Your task to perform on an android device: manage bookmarks in the chrome app Image 0: 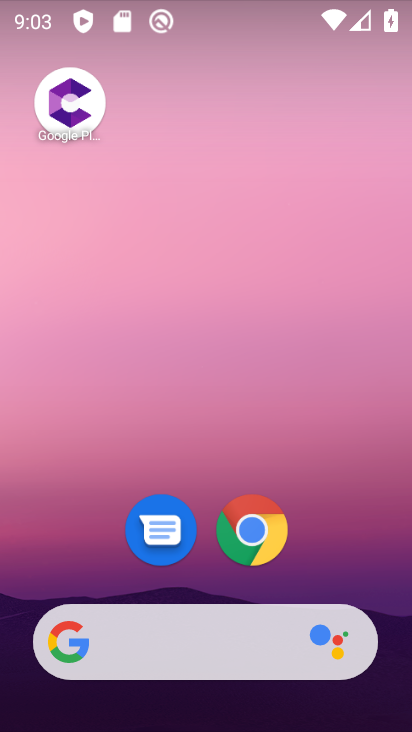
Step 0: click (253, 537)
Your task to perform on an android device: manage bookmarks in the chrome app Image 1: 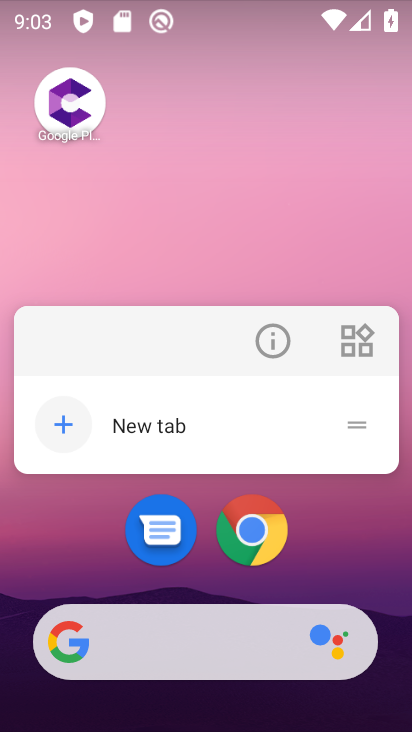
Step 1: click (252, 532)
Your task to perform on an android device: manage bookmarks in the chrome app Image 2: 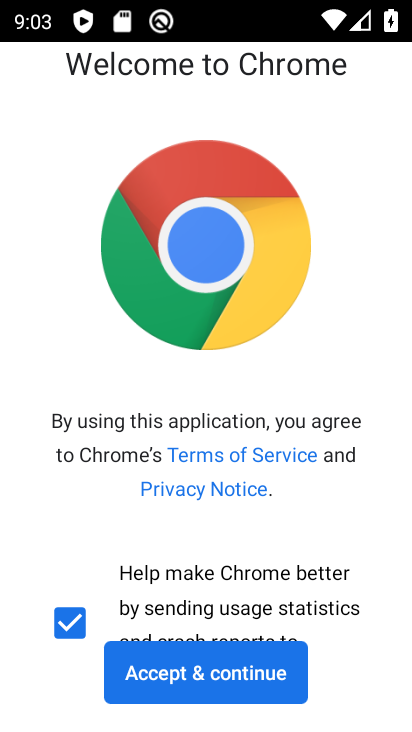
Step 2: click (203, 665)
Your task to perform on an android device: manage bookmarks in the chrome app Image 3: 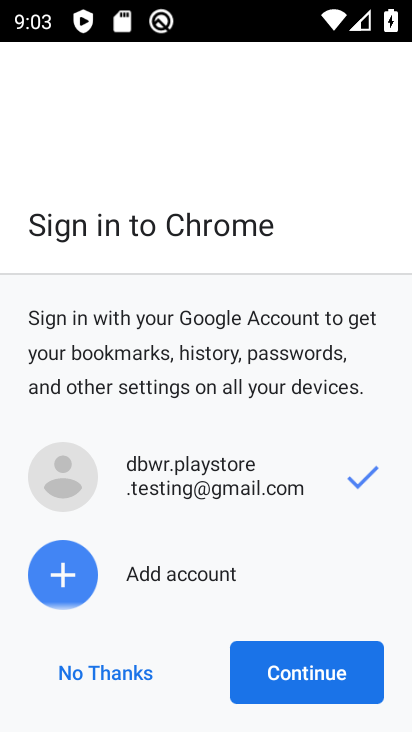
Step 3: click (101, 666)
Your task to perform on an android device: manage bookmarks in the chrome app Image 4: 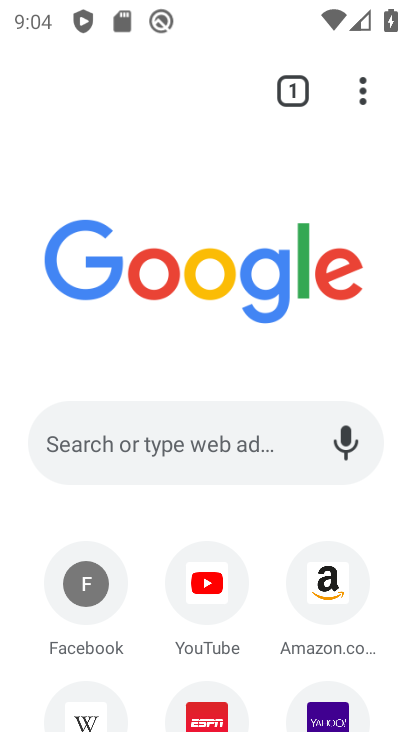
Step 4: click (362, 99)
Your task to perform on an android device: manage bookmarks in the chrome app Image 5: 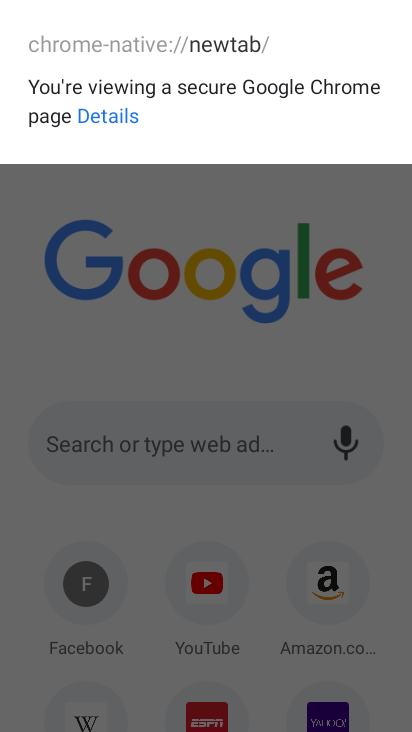
Step 5: click (380, 192)
Your task to perform on an android device: manage bookmarks in the chrome app Image 6: 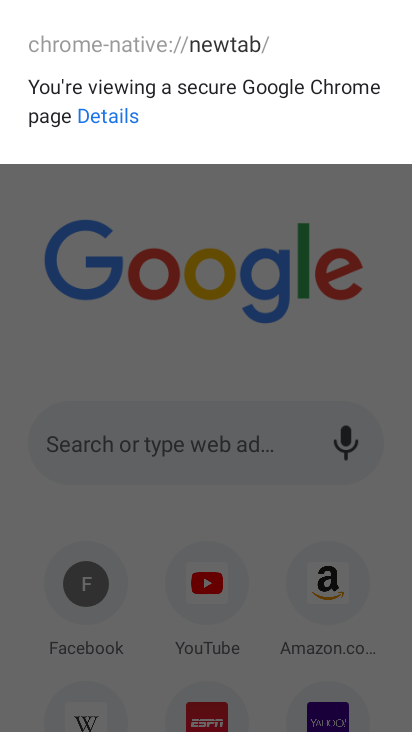
Step 6: click (386, 215)
Your task to perform on an android device: manage bookmarks in the chrome app Image 7: 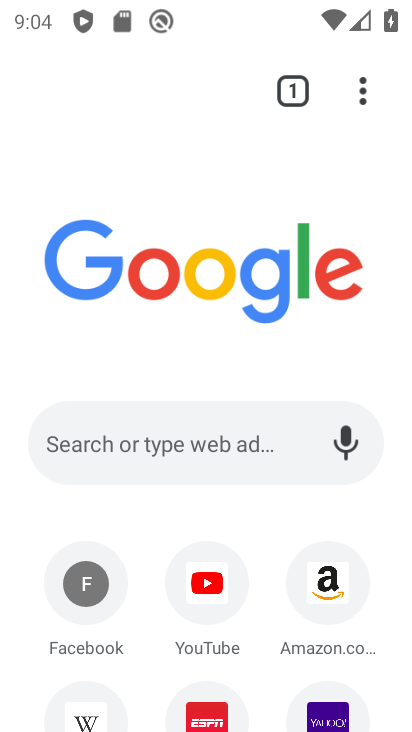
Step 7: click (367, 94)
Your task to perform on an android device: manage bookmarks in the chrome app Image 8: 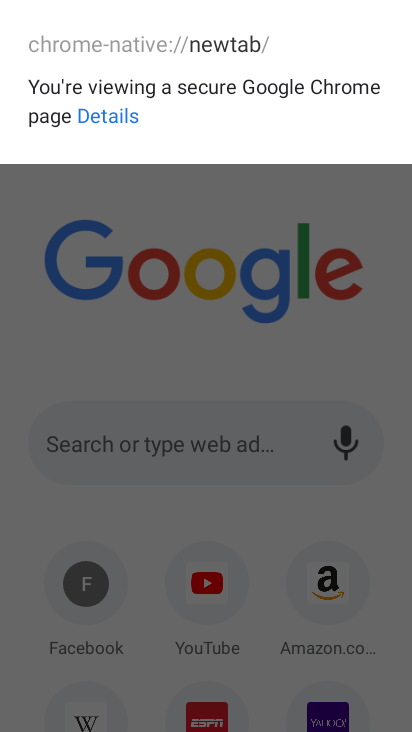
Step 8: click (382, 208)
Your task to perform on an android device: manage bookmarks in the chrome app Image 9: 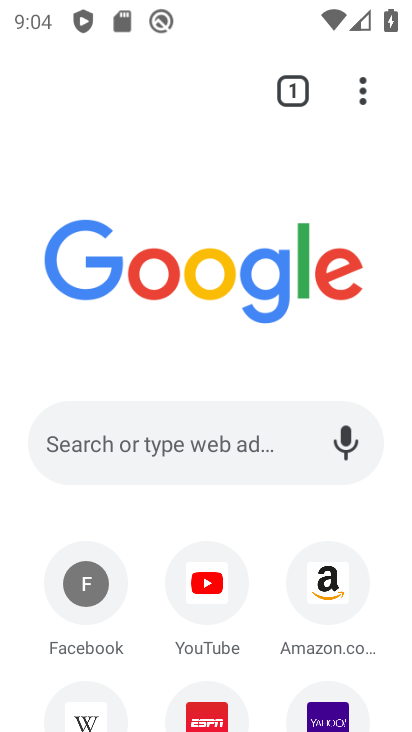
Step 9: click (363, 93)
Your task to perform on an android device: manage bookmarks in the chrome app Image 10: 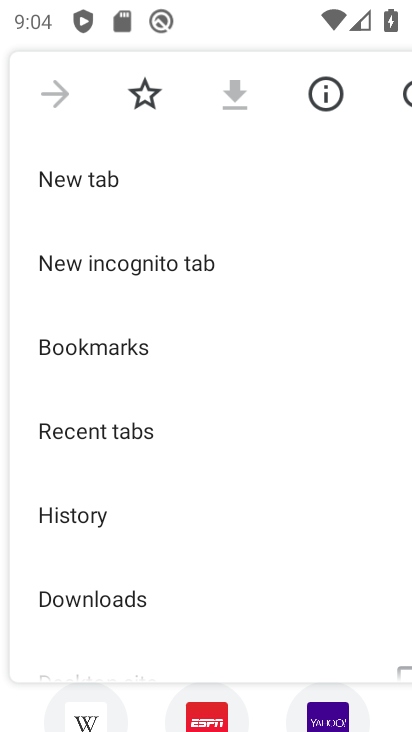
Step 10: click (110, 350)
Your task to perform on an android device: manage bookmarks in the chrome app Image 11: 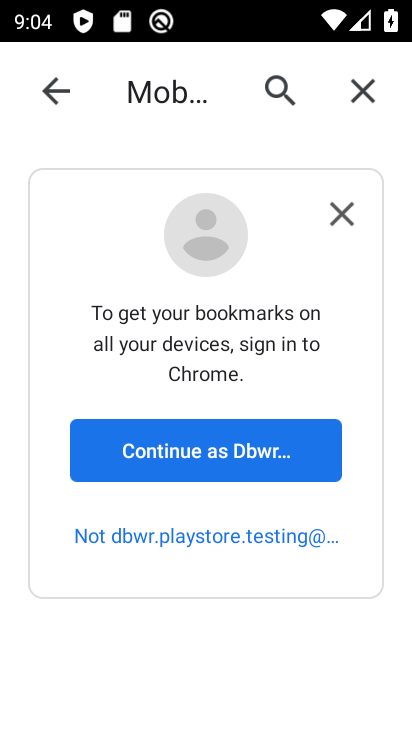
Step 11: click (205, 454)
Your task to perform on an android device: manage bookmarks in the chrome app Image 12: 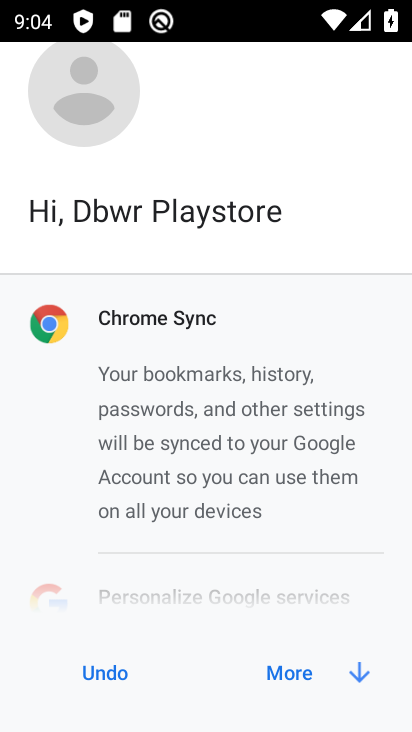
Step 12: click (282, 676)
Your task to perform on an android device: manage bookmarks in the chrome app Image 13: 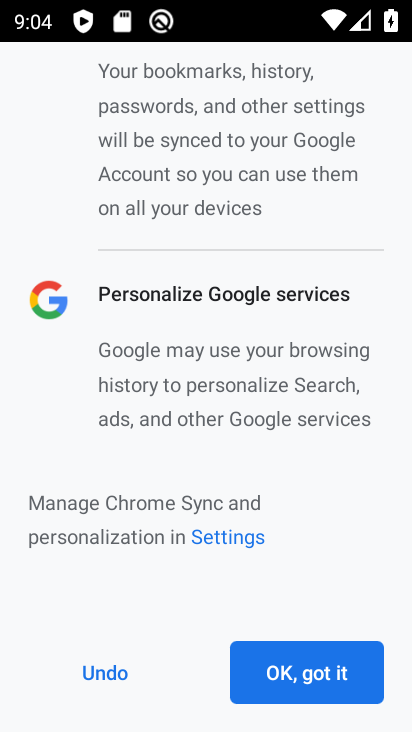
Step 13: click (283, 676)
Your task to perform on an android device: manage bookmarks in the chrome app Image 14: 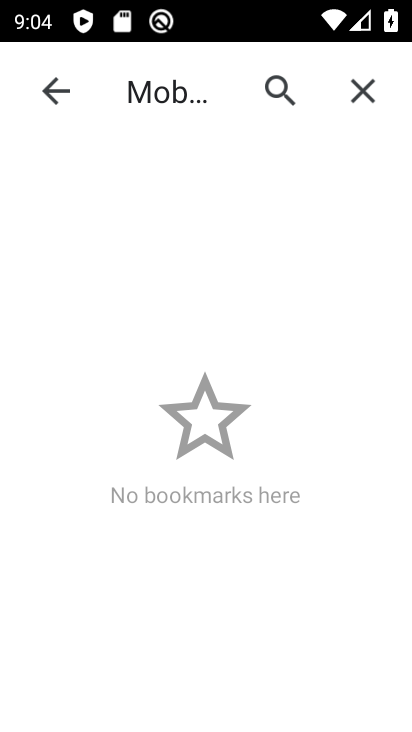
Step 14: drag from (216, 262) to (260, 603)
Your task to perform on an android device: manage bookmarks in the chrome app Image 15: 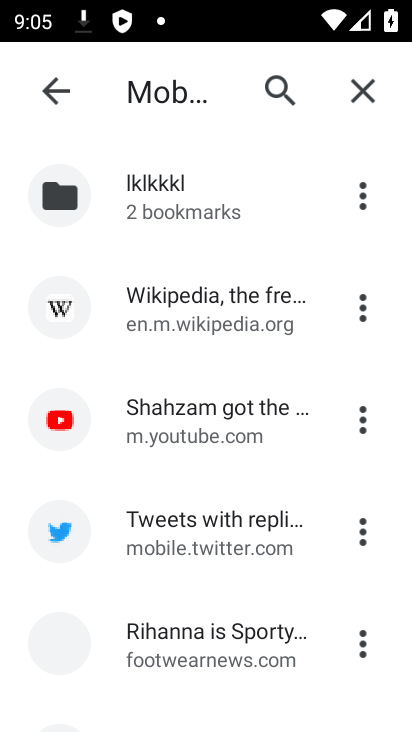
Step 15: click (362, 642)
Your task to perform on an android device: manage bookmarks in the chrome app Image 16: 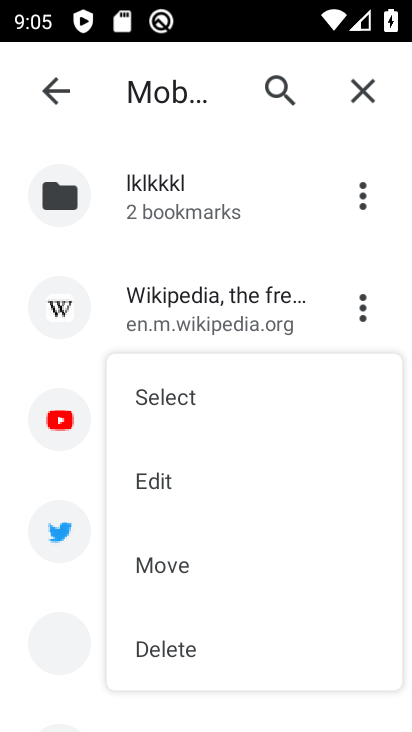
Step 16: click (166, 569)
Your task to perform on an android device: manage bookmarks in the chrome app Image 17: 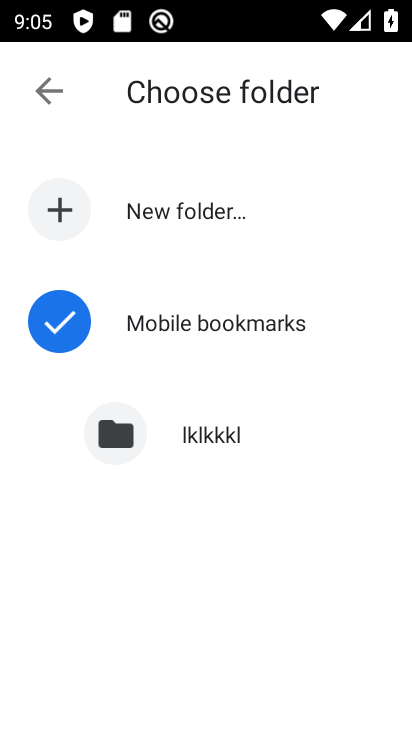
Step 17: click (187, 323)
Your task to perform on an android device: manage bookmarks in the chrome app Image 18: 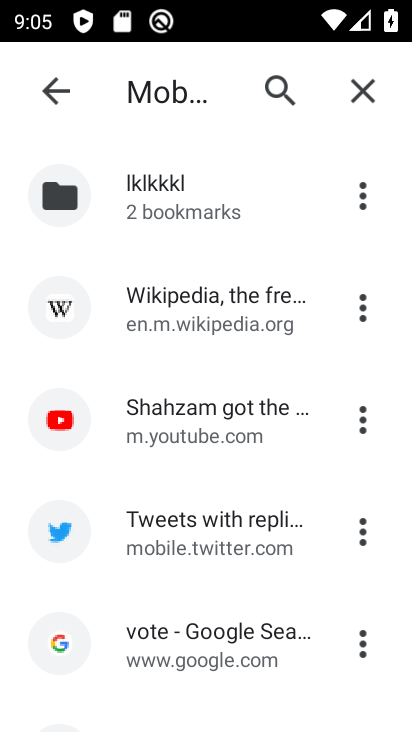
Step 18: task complete